Your task to perform on an android device: Do I have any events tomorrow? Image 0: 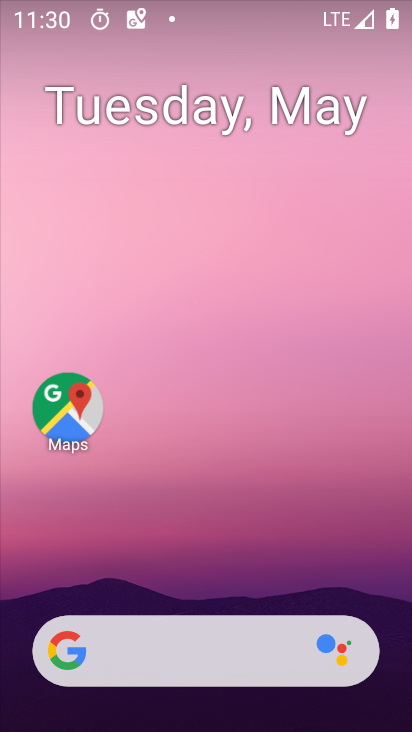
Step 0: drag from (225, 624) to (219, 267)
Your task to perform on an android device: Do I have any events tomorrow? Image 1: 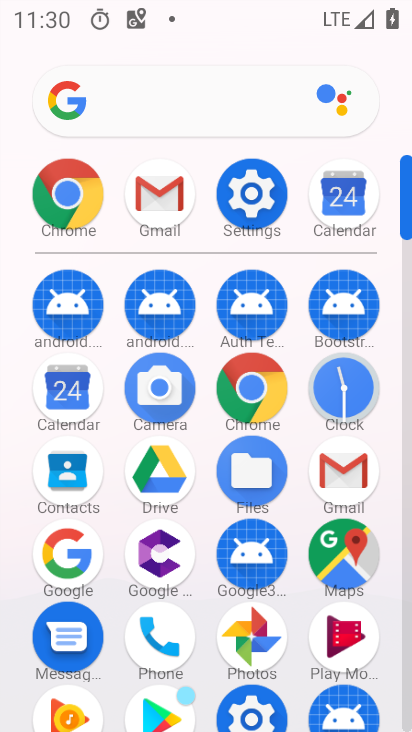
Step 1: click (81, 392)
Your task to perform on an android device: Do I have any events tomorrow? Image 2: 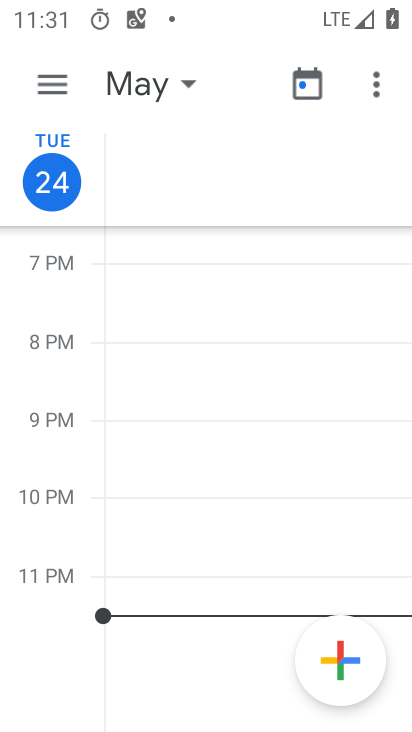
Step 2: click (60, 84)
Your task to perform on an android device: Do I have any events tomorrow? Image 3: 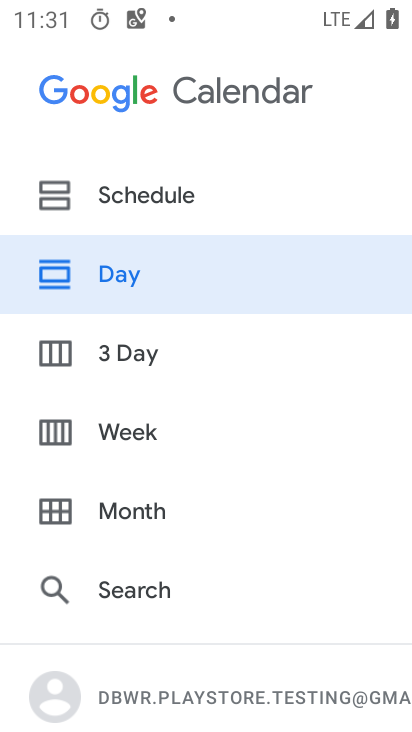
Step 3: click (141, 210)
Your task to perform on an android device: Do I have any events tomorrow? Image 4: 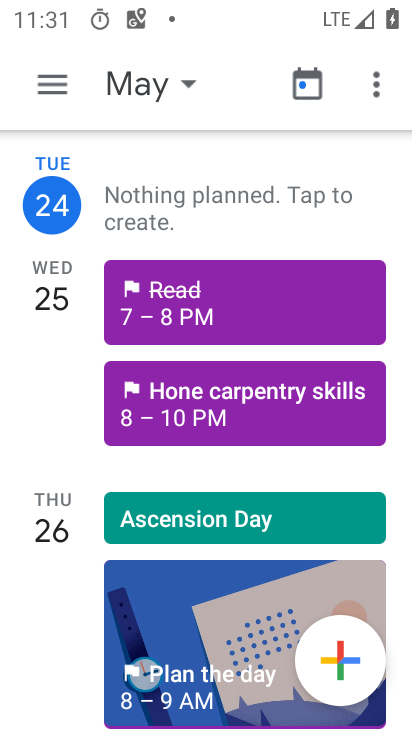
Step 4: task complete